Your task to perform on an android device: Open my contact list Image 0: 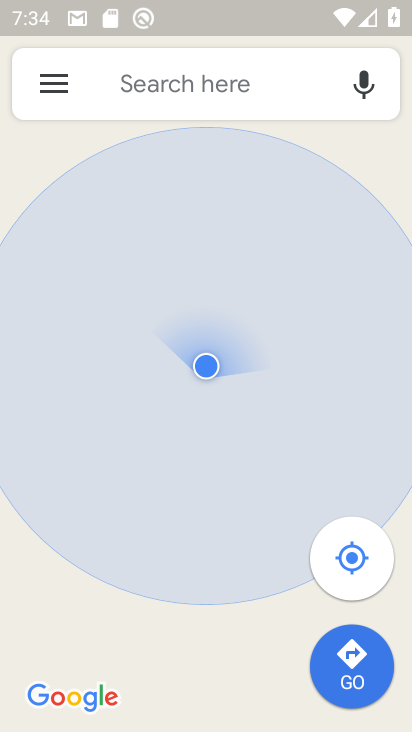
Step 0: press home button
Your task to perform on an android device: Open my contact list Image 1: 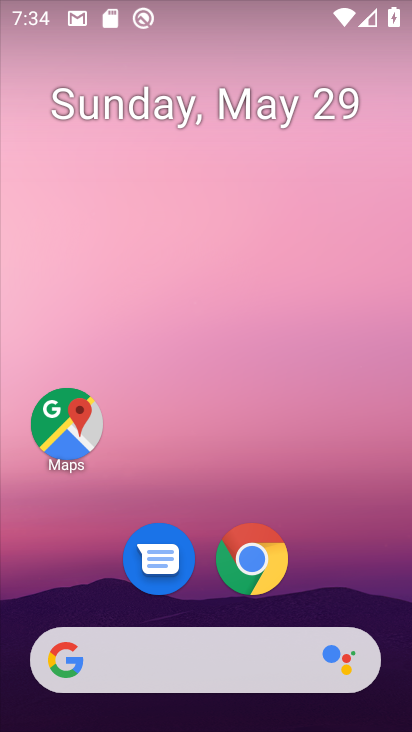
Step 1: drag from (364, 595) to (370, 137)
Your task to perform on an android device: Open my contact list Image 2: 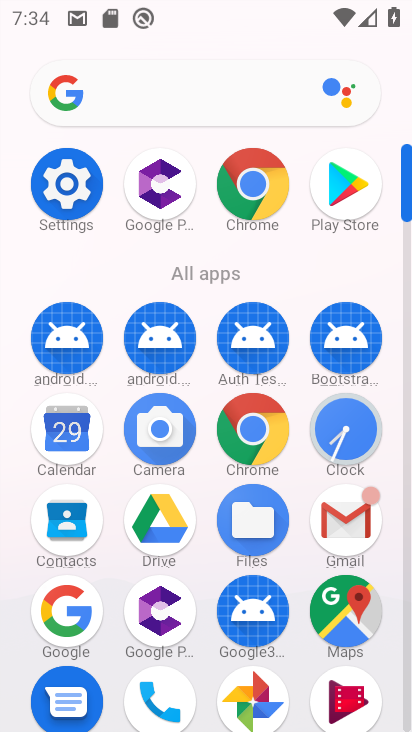
Step 2: click (63, 542)
Your task to perform on an android device: Open my contact list Image 3: 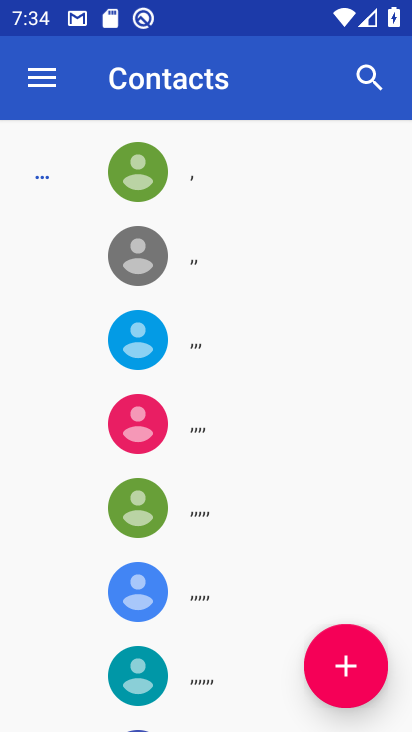
Step 3: click (349, 656)
Your task to perform on an android device: Open my contact list Image 4: 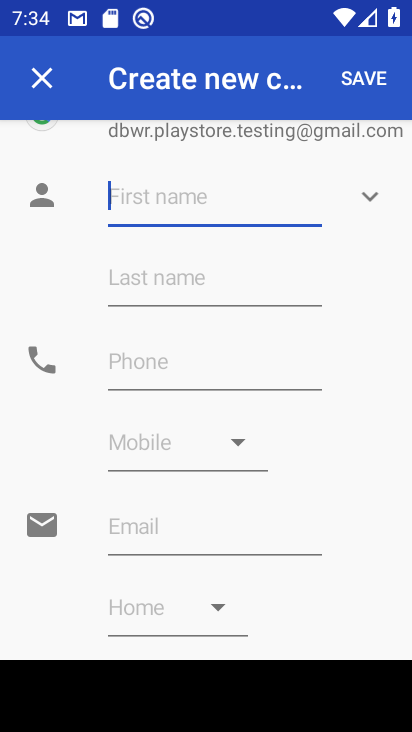
Step 4: type "lollll"
Your task to perform on an android device: Open my contact list Image 5: 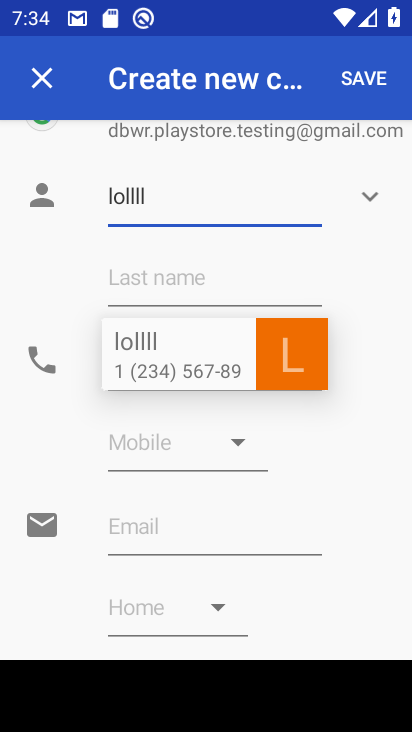
Step 5: click (371, 353)
Your task to perform on an android device: Open my contact list Image 6: 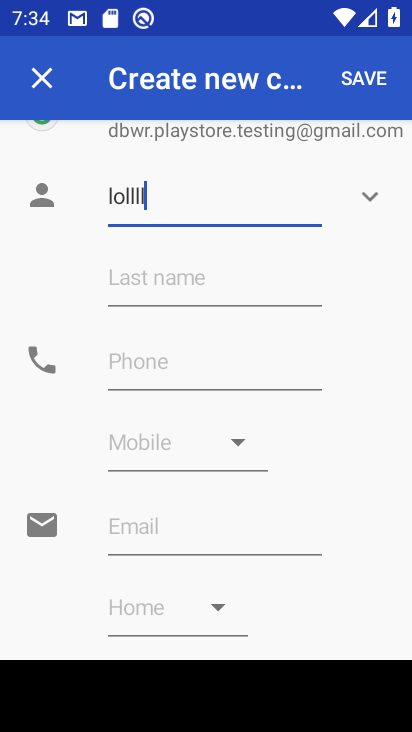
Step 6: click (295, 381)
Your task to perform on an android device: Open my contact list Image 7: 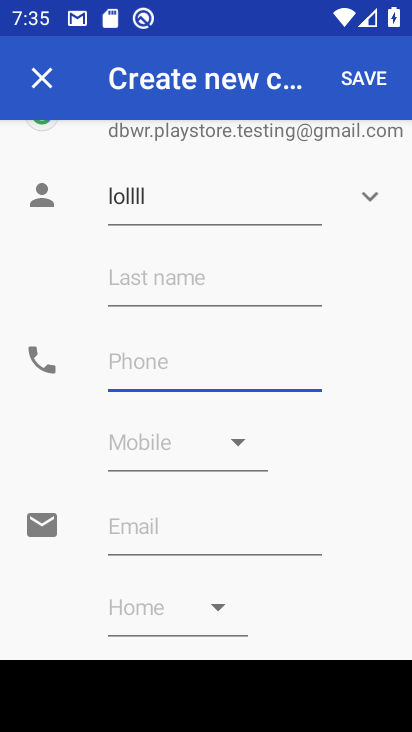
Step 7: type "1234567890"
Your task to perform on an android device: Open my contact list Image 8: 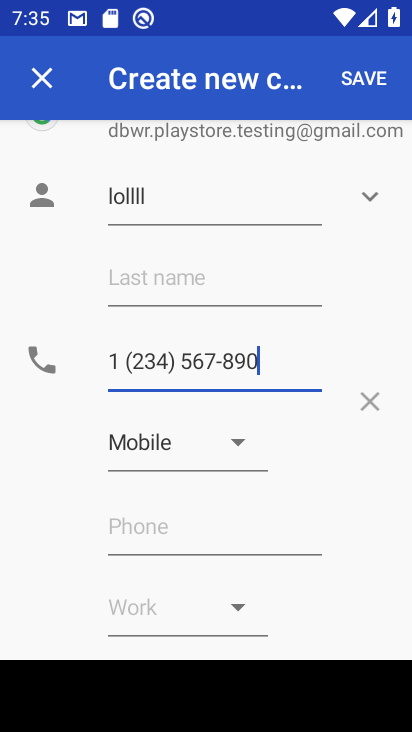
Step 8: click (371, 81)
Your task to perform on an android device: Open my contact list Image 9: 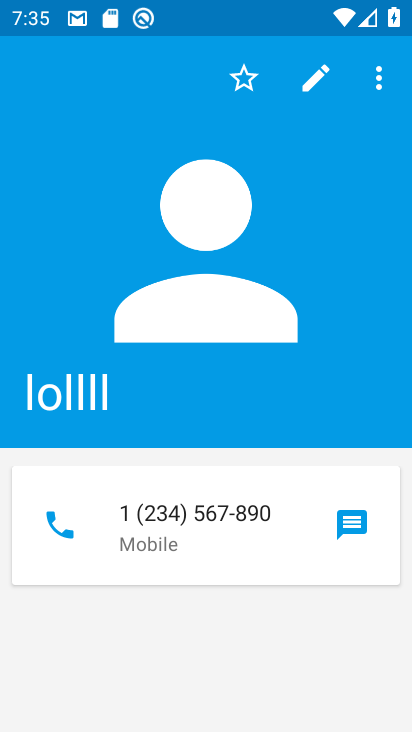
Step 9: task complete